Your task to perform on an android device: Go to sound settings Image 0: 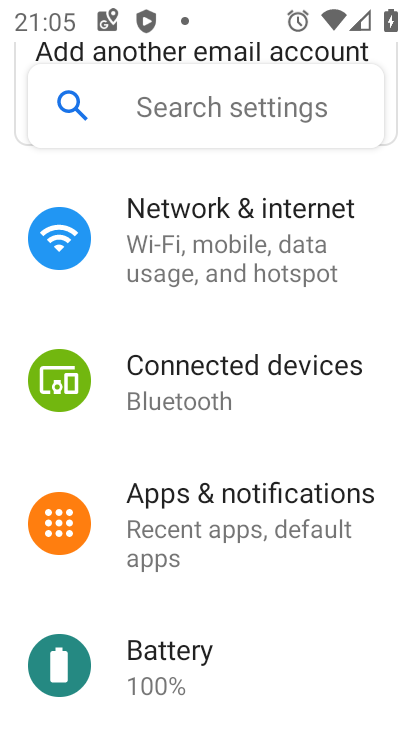
Step 0: drag from (343, 648) to (333, 85)
Your task to perform on an android device: Go to sound settings Image 1: 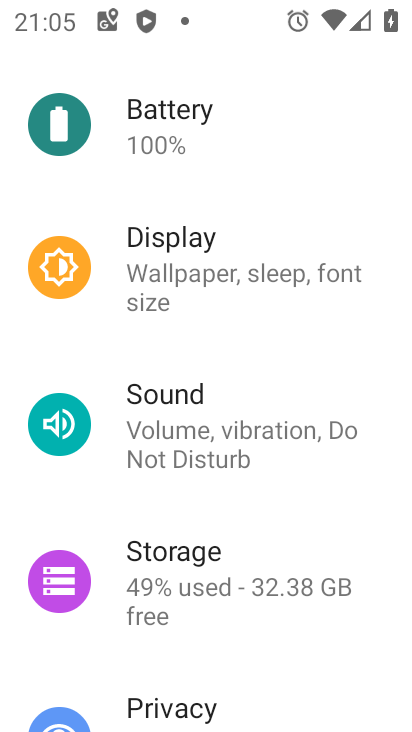
Step 1: click (199, 427)
Your task to perform on an android device: Go to sound settings Image 2: 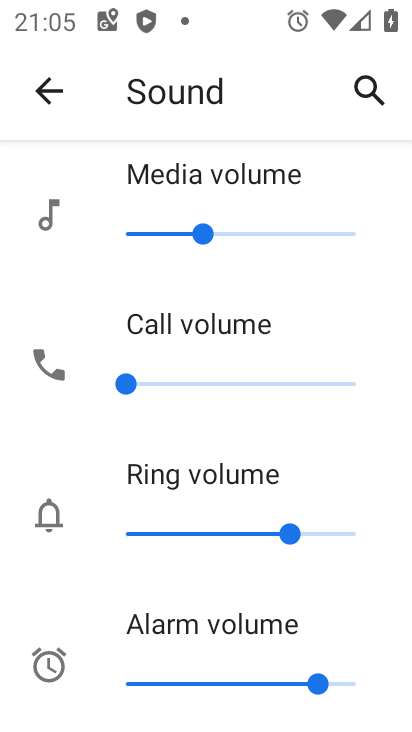
Step 2: task complete